Your task to perform on an android device: set the timer Image 0: 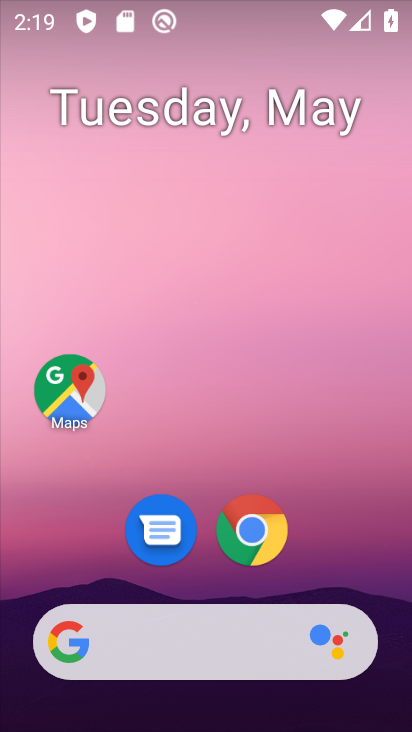
Step 0: drag from (203, 575) to (221, 128)
Your task to perform on an android device: set the timer Image 1: 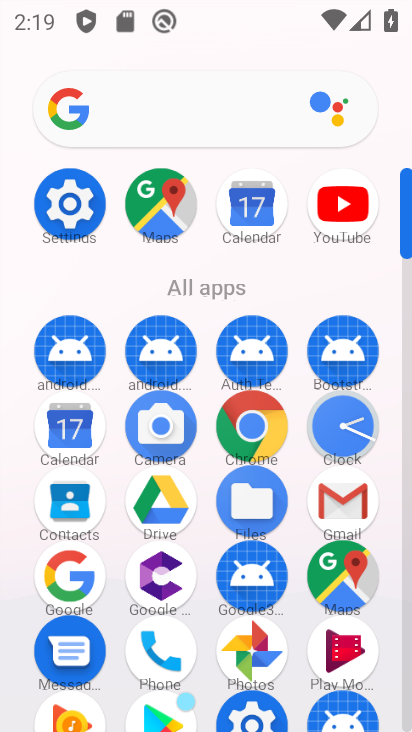
Step 1: click (333, 438)
Your task to perform on an android device: set the timer Image 2: 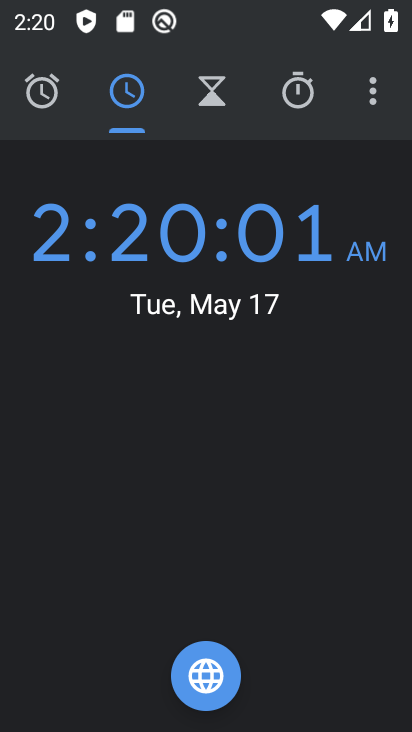
Step 2: click (206, 101)
Your task to perform on an android device: set the timer Image 3: 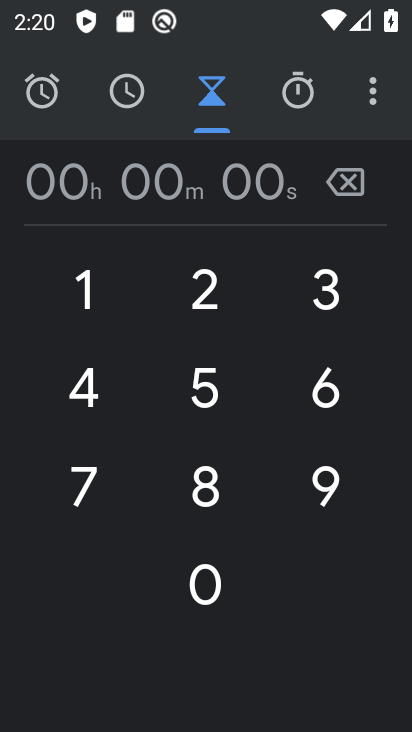
Step 3: click (269, 173)
Your task to perform on an android device: set the timer Image 4: 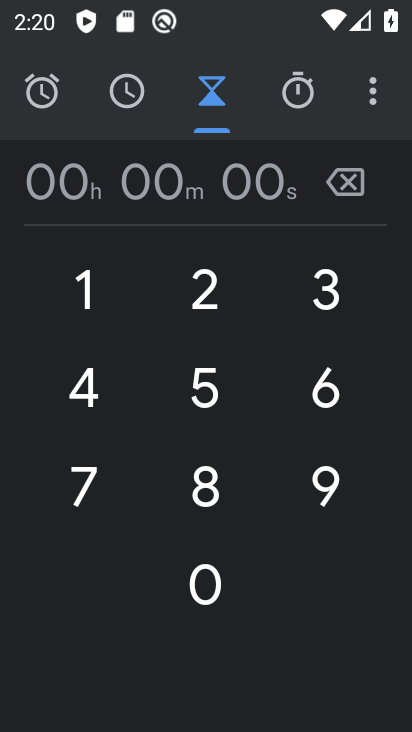
Step 4: type "22"
Your task to perform on an android device: set the timer Image 5: 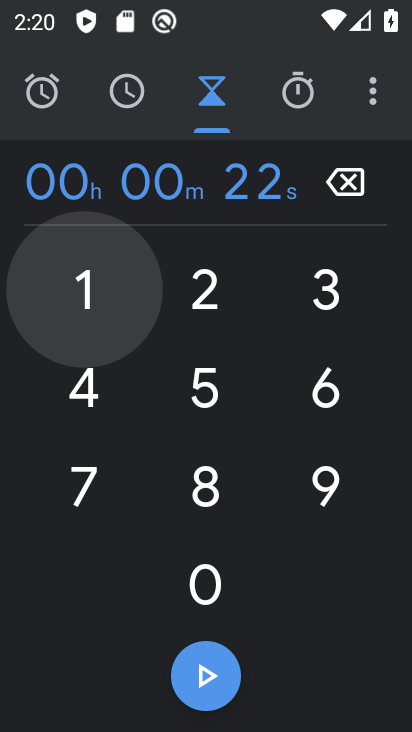
Step 5: click (227, 677)
Your task to perform on an android device: set the timer Image 6: 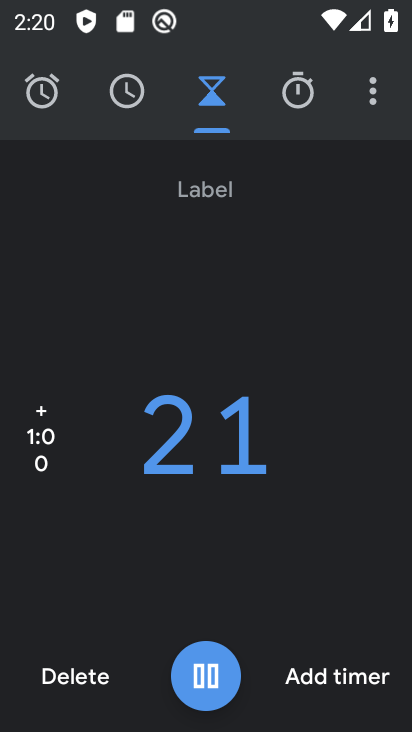
Step 6: task complete